Your task to perform on an android device: stop showing notifications on the lock screen Image 0: 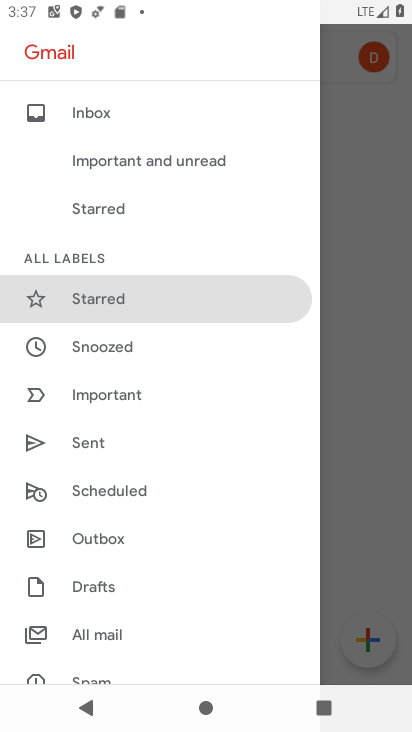
Step 0: press home button
Your task to perform on an android device: stop showing notifications on the lock screen Image 1: 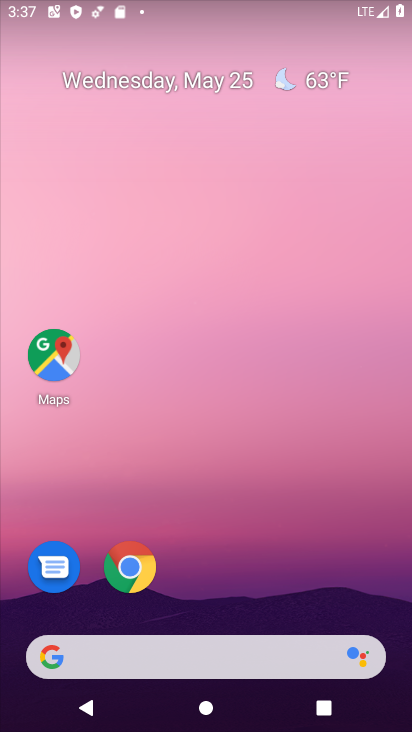
Step 1: drag from (255, 592) to (371, 101)
Your task to perform on an android device: stop showing notifications on the lock screen Image 2: 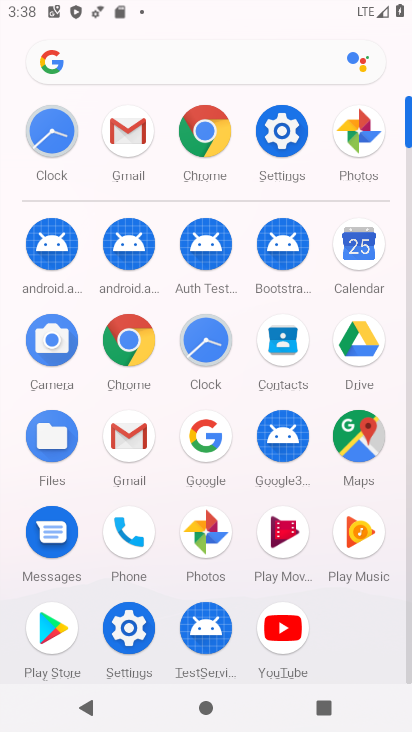
Step 2: click (134, 625)
Your task to perform on an android device: stop showing notifications on the lock screen Image 3: 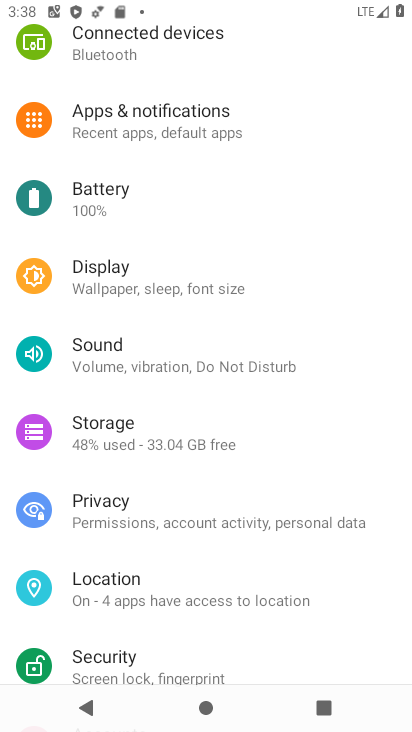
Step 3: click (193, 121)
Your task to perform on an android device: stop showing notifications on the lock screen Image 4: 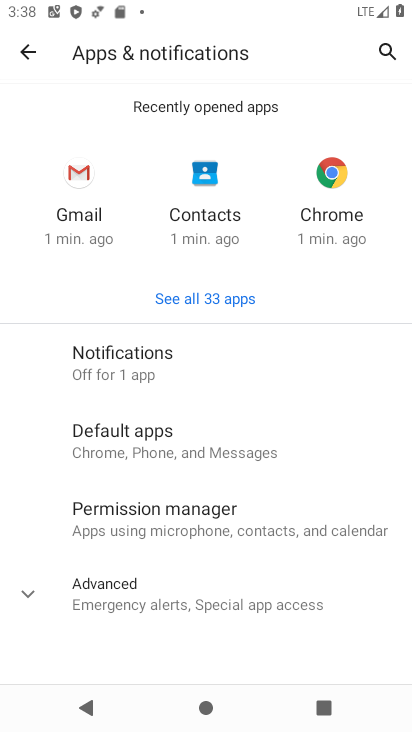
Step 4: click (138, 365)
Your task to perform on an android device: stop showing notifications on the lock screen Image 5: 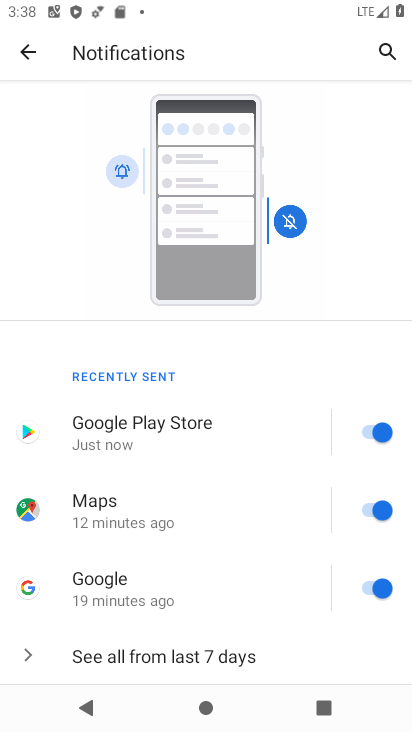
Step 5: drag from (251, 594) to (306, 247)
Your task to perform on an android device: stop showing notifications on the lock screen Image 6: 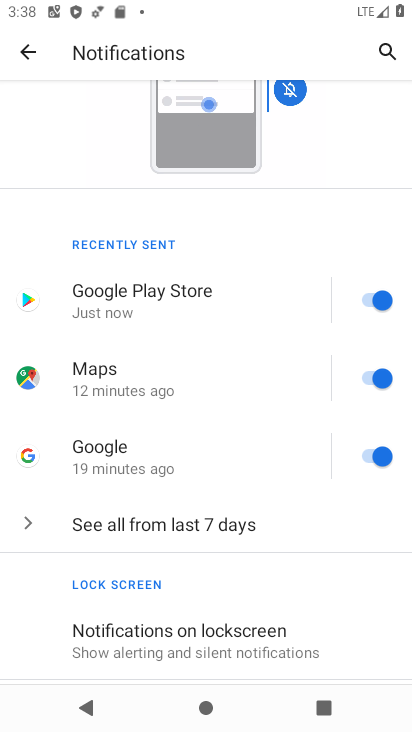
Step 6: click (256, 635)
Your task to perform on an android device: stop showing notifications on the lock screen Image 7: 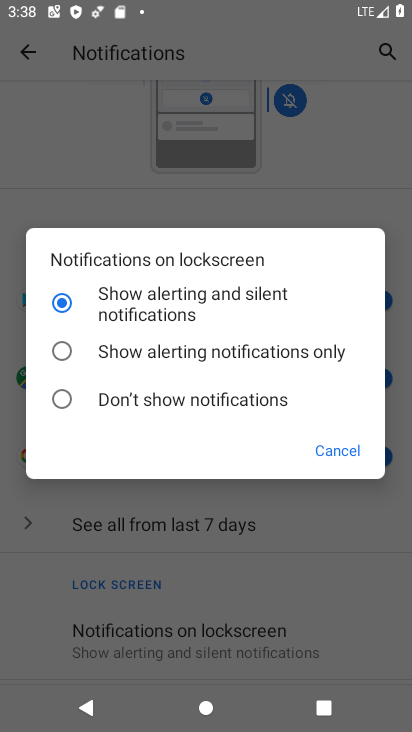
Step 7: click (133, 393)
Your task to perform on an android device: stop showing notifications on the lock screen Image 8: 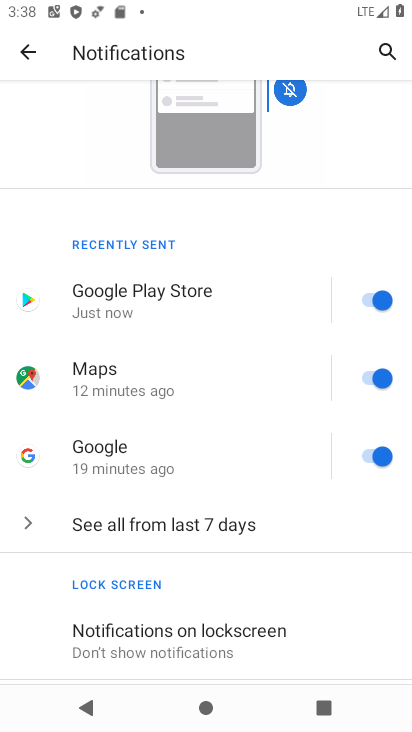
Step 8: task complete